Your task to perform on an android device: turn notification dots off Image 0: 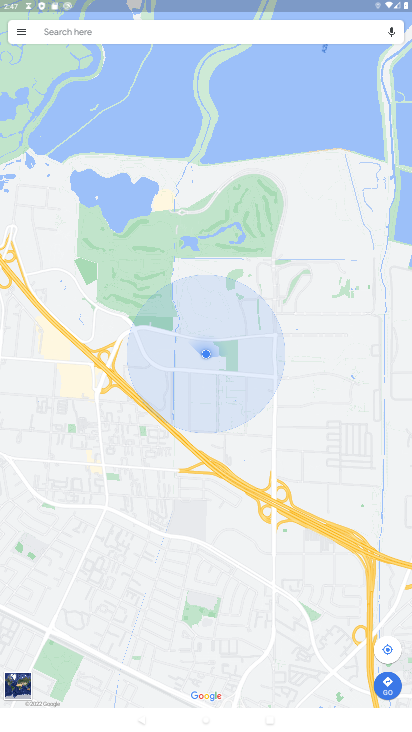
Step 0: press home button
Your task to perform on an android device: turn notification dots off Image 1: 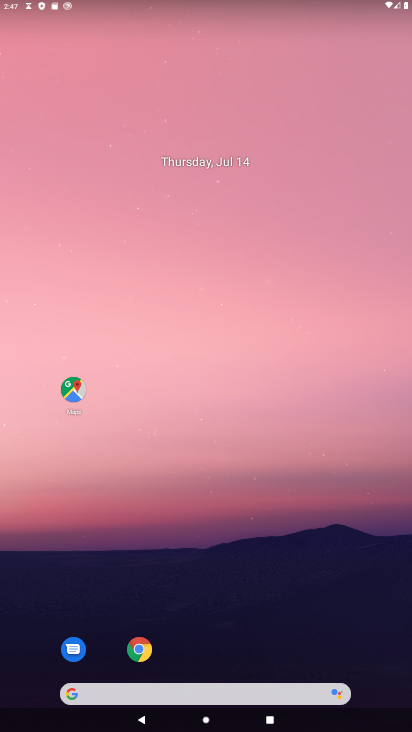
Step 1: drag from (191, 622) to (139, 24)
Your task to perform on an android device: turn notification dots off Image 2: 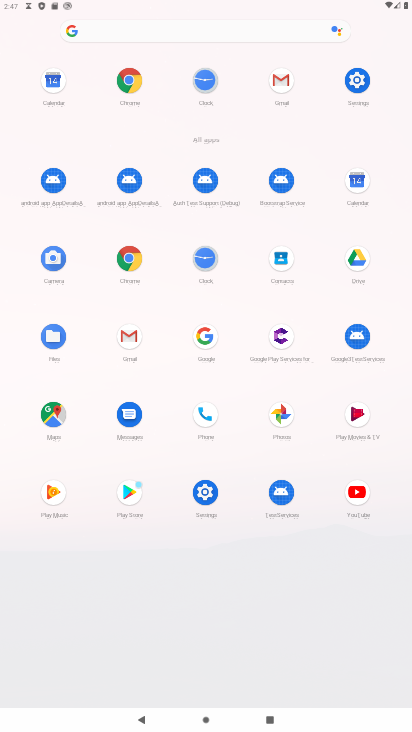
Step 2: click (205, 499)
Your task to perform on an android device: turn notification dots off Image 3: 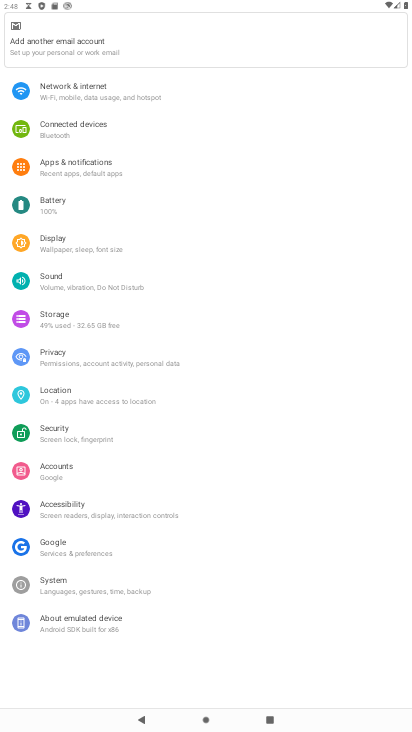
Step 3: click (101, 173)
Your task to perform on an android device: turn notification dots off Image 4: 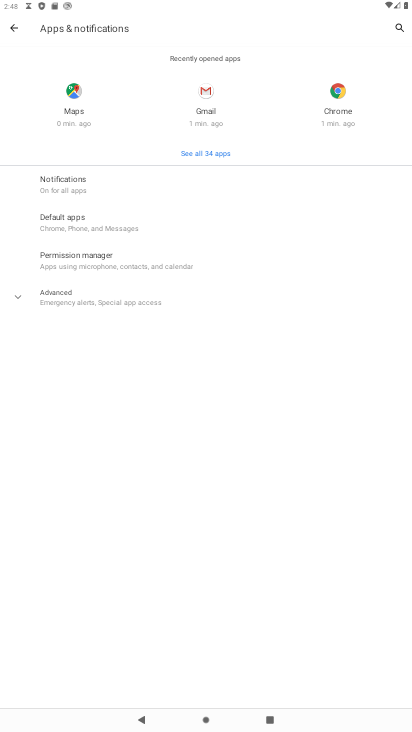
Step 4: click (76, 186)
Your task to perform on an android device: turn notification dots off Image 5: 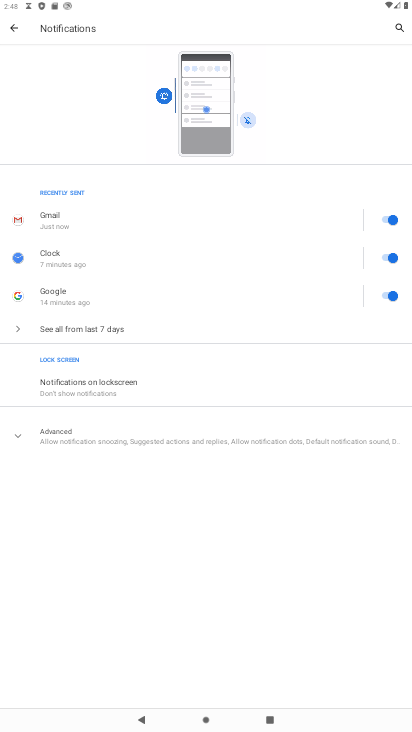
Step 5: click (79, 432)
Your task to perform on an android device: turn notification dots off Image 6: 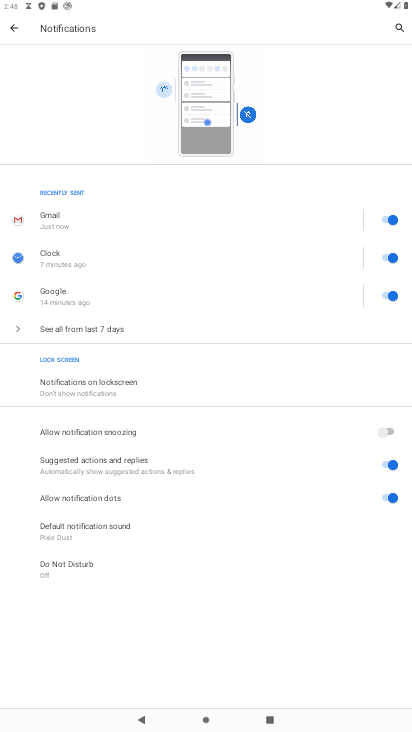
Step 6: click (368, 494)
Your task to perform on an android device: turn notification dots off Image 7: 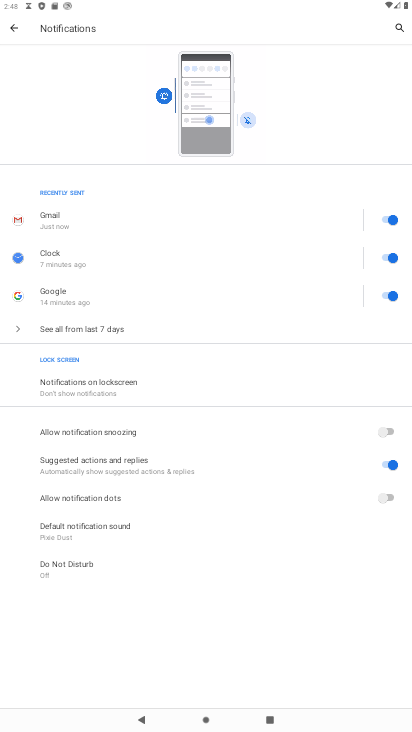
Step 7: task complete